Your task to perform on an android device: turn on the 24-hour format for clock Image 0: 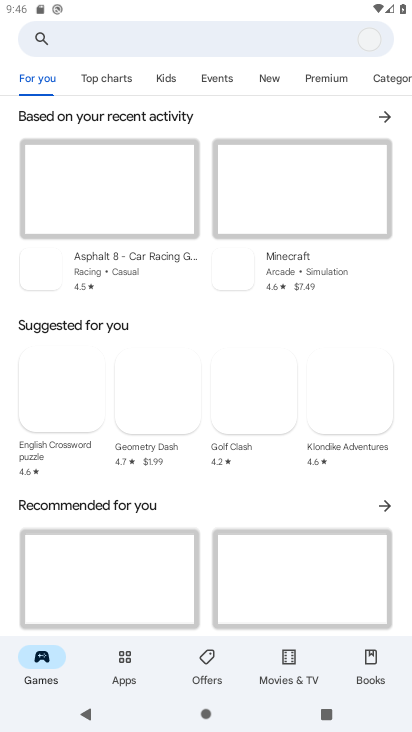
Step 0: press home button
Your task to perform on an android device: turn on the 24-hour format for clock Image 1: 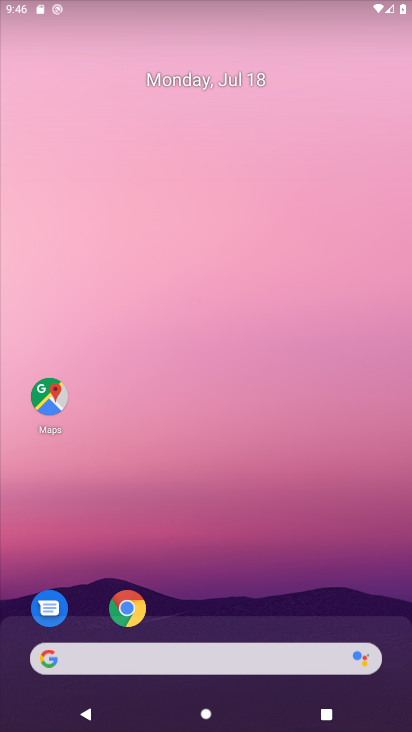
Step 1: drag from (232, 641) to (276, 85)
Your task to perform on an android device: turn on the 24-hour format for clock Image 2: 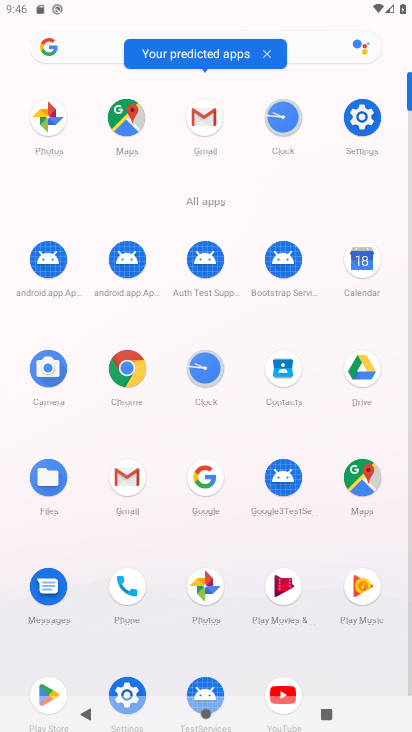
Step 2: click (197, 373)
Your task to perform on an android device: turn on the 24-hour format for clock Image 3: 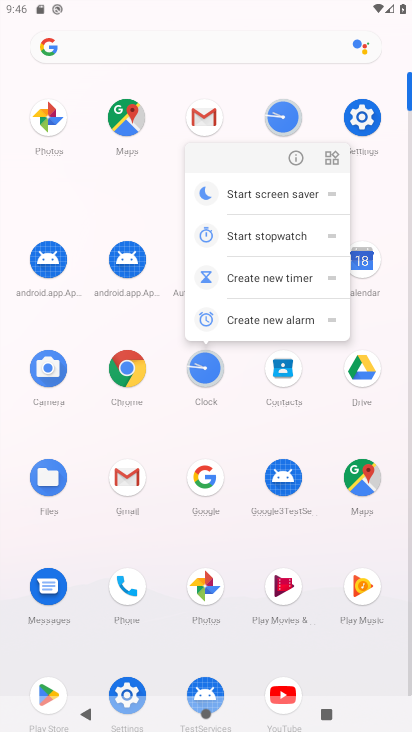
Step 3: click (197, 373)
Your task to perform on an android device: turn on the 24-hour format for clock Image 4: 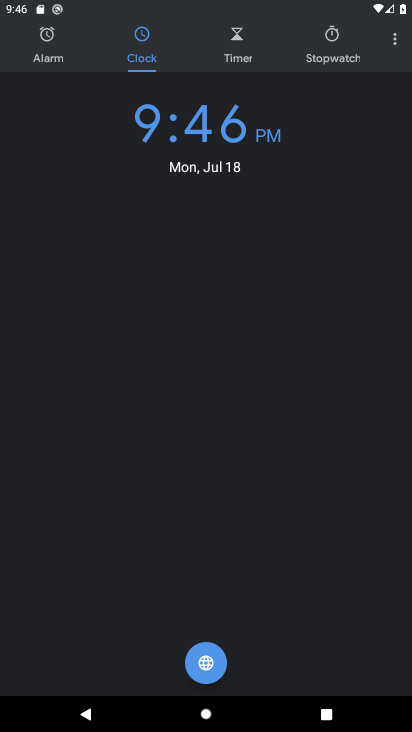
Step 4: click (397, 24)
Your task to perform on an android device: turn on the 24-hour format for clock Image 5: 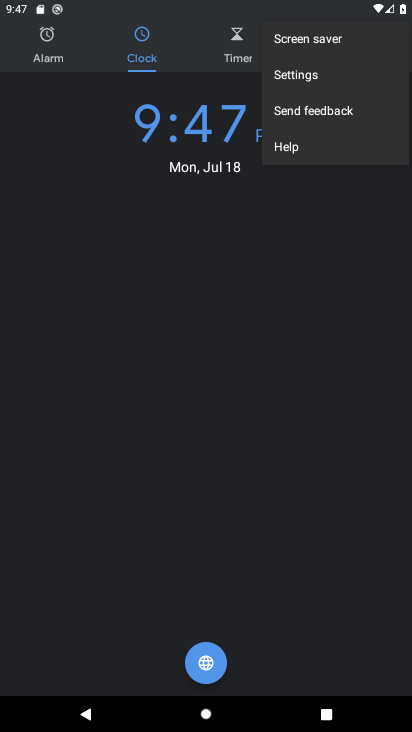
Step 5: click (356, 81)
Your task to perform on an android device: turn on the 24-hour format for clock Image 6: 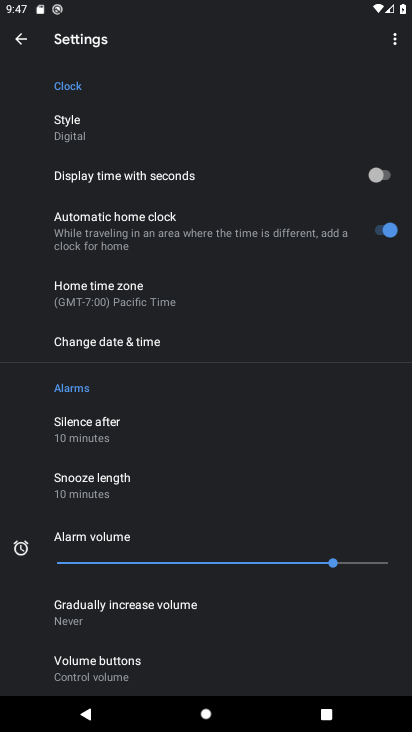
Step 6: click (233, 356)
Your task to perform on an android device: turn on the 24-hour format for clock Image 7: 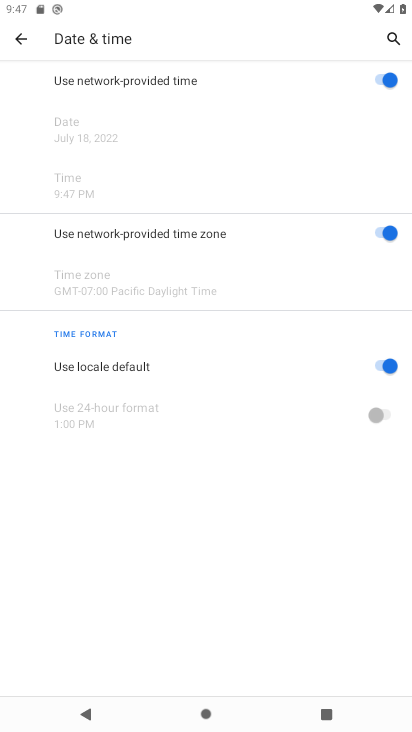
Step 7: click (386, 363)
Your task to perform on an android device: turn on the 24-hour format for clock Image 8: 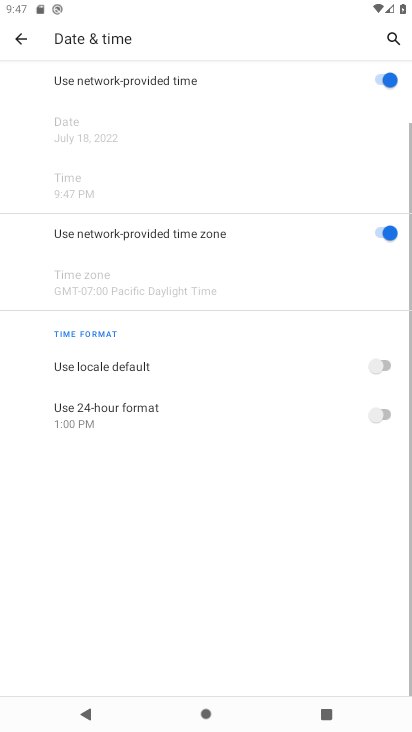
Step 8: click (389, 421)
Your task to perform on an android device: turn on the 24-hour format for clock Image 9: 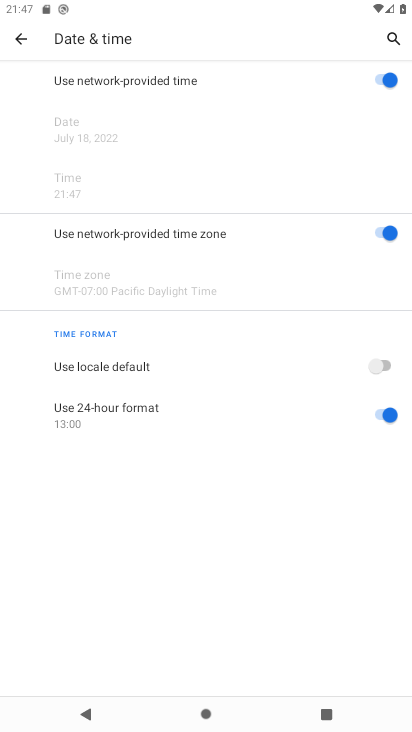
Step 9: task complete